Your task to perform on an android device: add a label to a message in the gmail app Image 0: 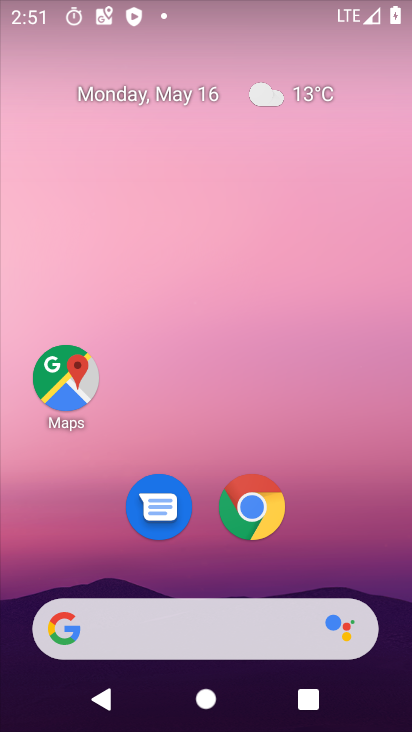
Step 0: drag from (380, 556) to (373, 104)
Your task to perform on an android device: add a label to a message in the gmail app Image 1: 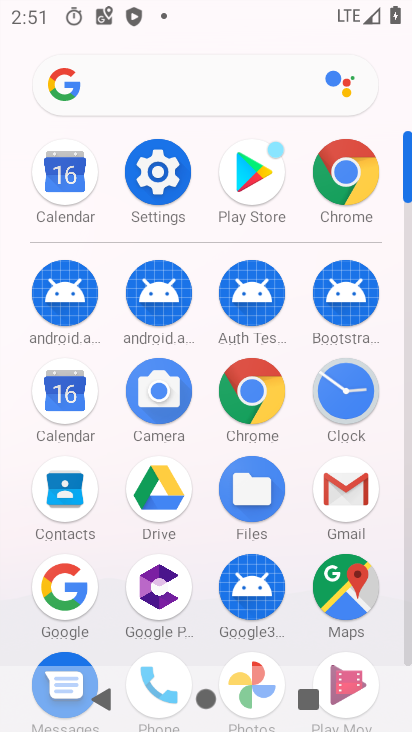
Step 1: click (338, 506)
Your task to perform on an android device: add a label to a message in the gmail app Image 2: 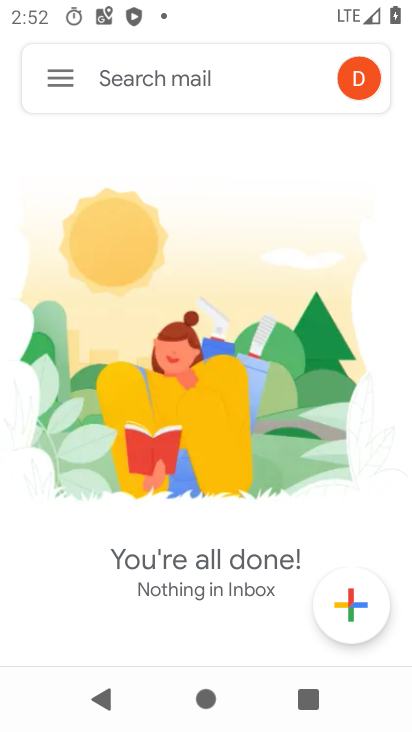
Step 2: click (77, 70)
Your task to perform on an android device: add a label to a message in the gmail app Image 3: 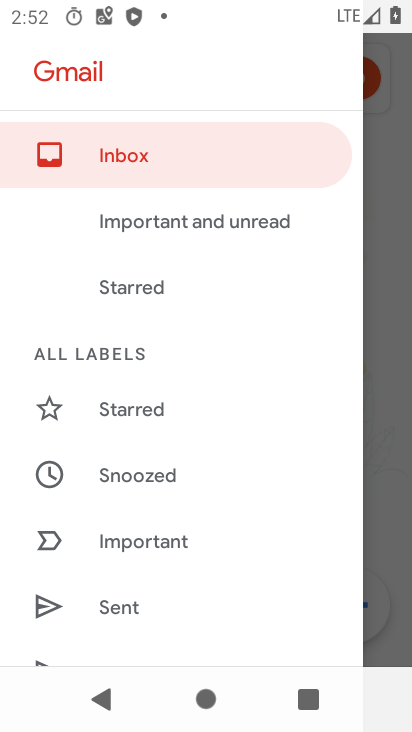
Step 3: drag from (266, 553) to (273, 367)
Your task to perform on an android device: add a label to a message in the gmail app Image 4: 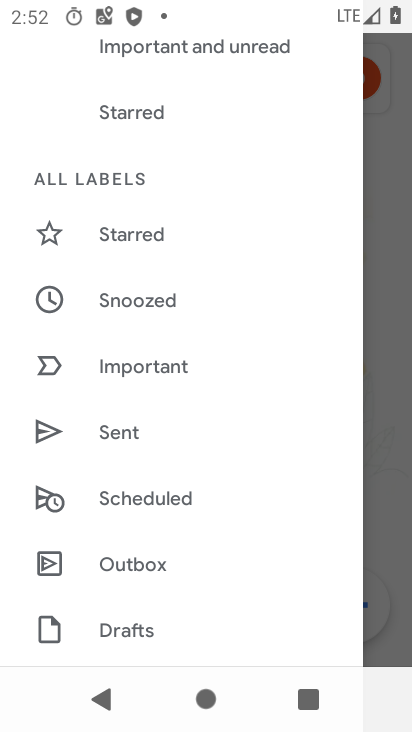
Step 4: drag from (250, 616) to (263, 404)
Your task to perform on an android device: add a label to a message in the gmail app Image 5: 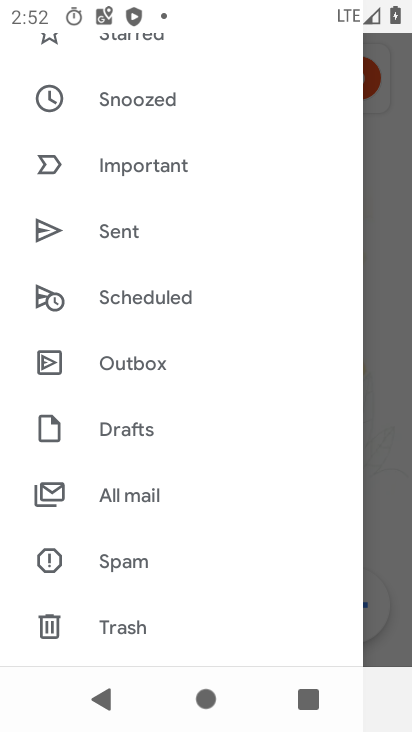
Step 5: drag from (266, 608) to (264, 374)
Your task to perform on an android device: add a label to a message in the gmail app Image 6: 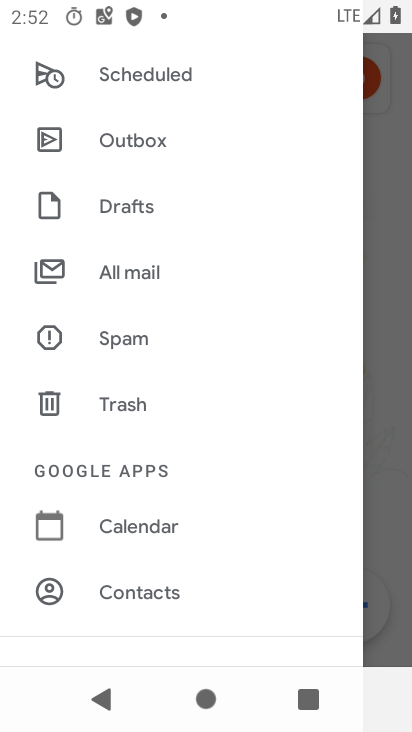
Step 6: drag from (253, 623) to (263, 374)
Your task to perform on an android device: add a label to a message in the gmail app Image 7: 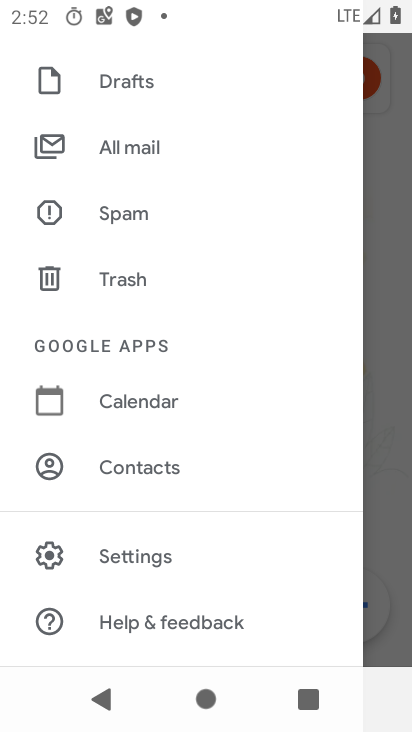
Step 7: drag from (280, 281) to (276, 415)
Your task to perform on an android device: add a label to a message in the gmail app Image 8: 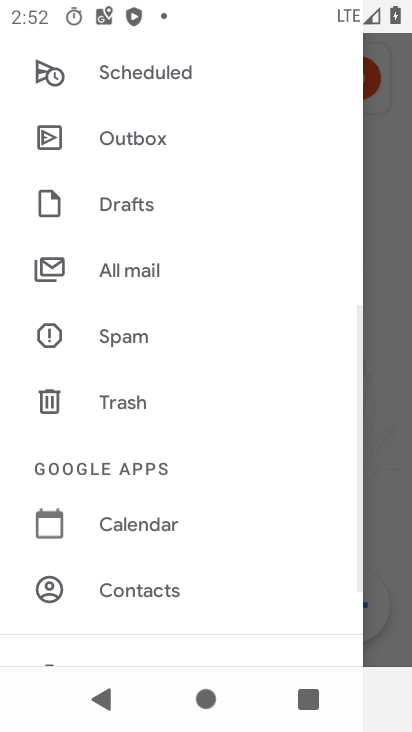
Step 8: drag from (286, 243) to (266, 435)
Your task to perform on an android device: add a label to a message in the gmail app Image 9: 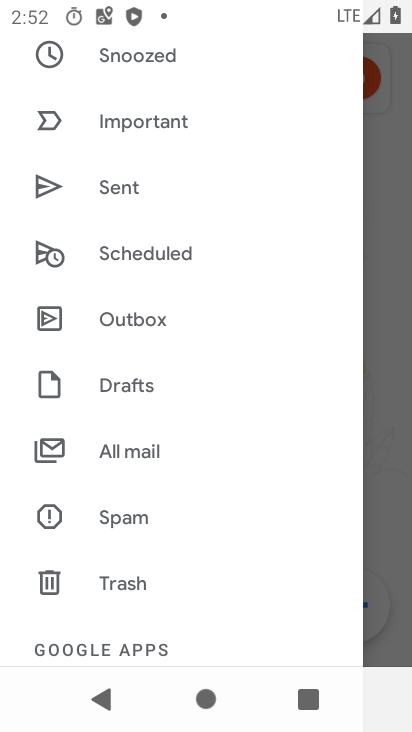
Step 9: drag from (258, 245) to (247, 413)
Your task to perform on an android device: add a label to a message in the gmail app Image 10: 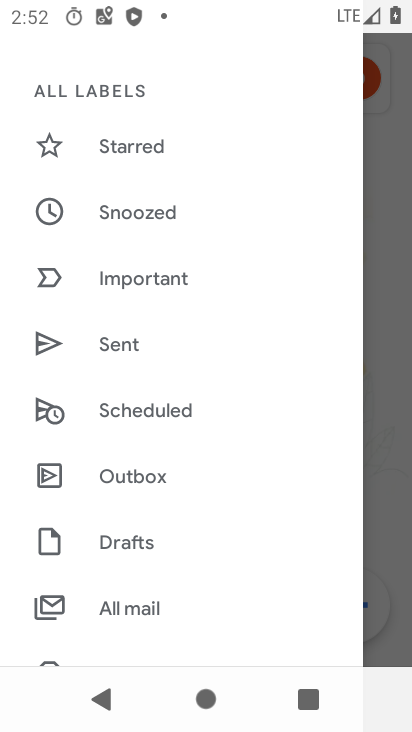
Step 10: drag from (272, 211) to (273, 371)
Your task to perform on an android device: add a label to a message in the gmail app Image 11: 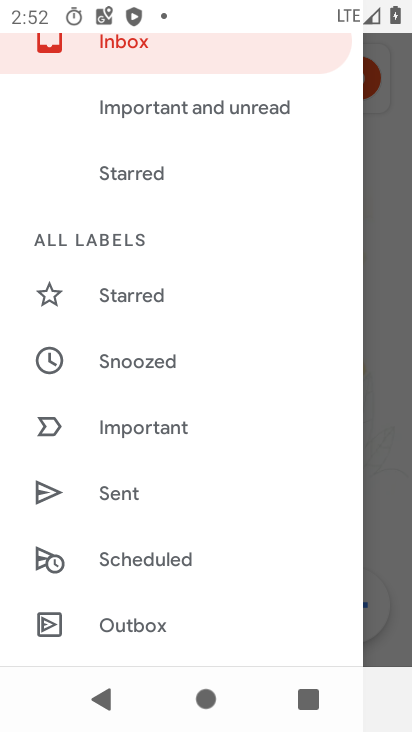
Step 11: drag from (286, 166) to (288, 358)
Your task to perform on an android device: add a label to a message in the gmail app Image 12: 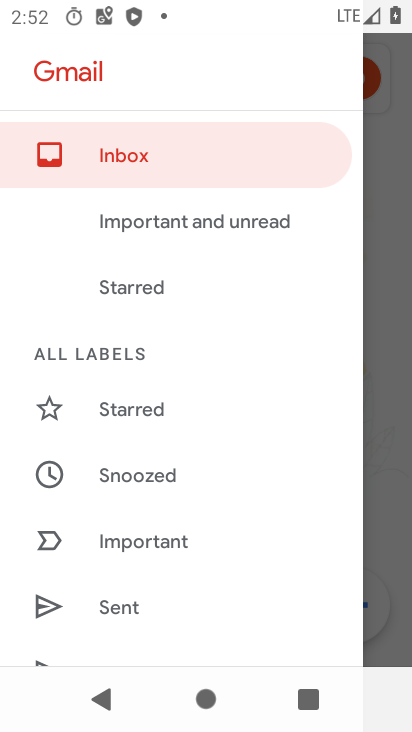
Step 12: click (218, 168)
Your task to perform on an android device: add a label to a message in the gmail app Image 13: 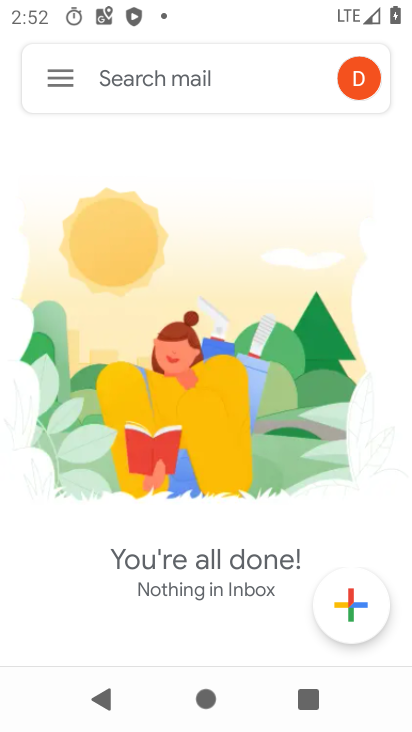
Step 13: task complete